Your task to perform on an android device: delete location history Image 0: 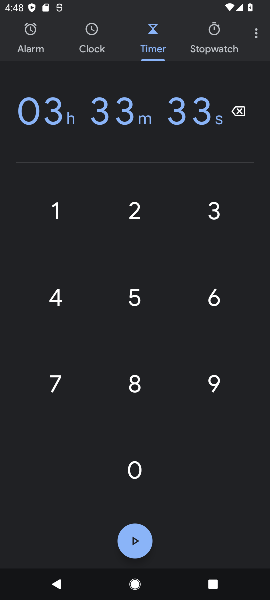
Step 0: press home button
Your task to perform on an android device: delete location history Image 1: 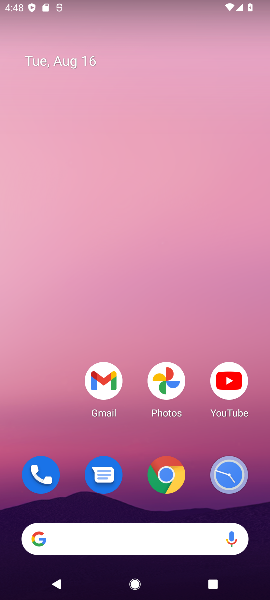
Step 1: drag from (263, 497) to (124, 19)
Your task to perform on an android device: delete location history Image 2: 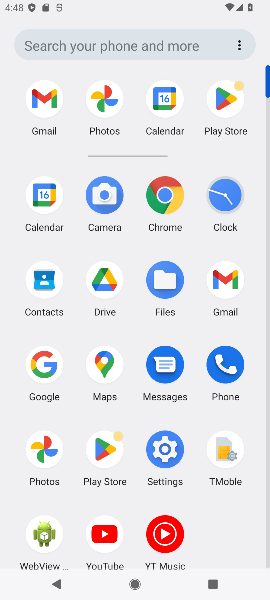
Step 2: click (151, 453)
Your task to perform on an android device: delete location history Image 3: 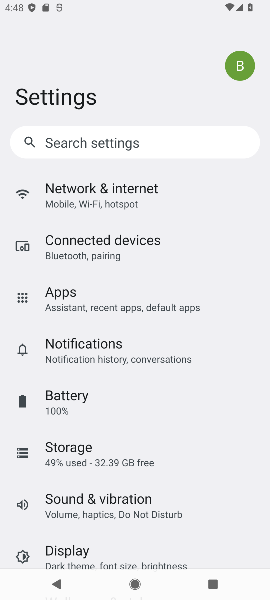
Step 3: drag from (131, 550) to (159, 211)
Your task to perform on an android device: delete location history Image 4: 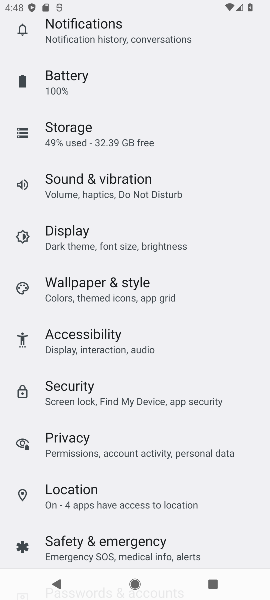
Step 4: click (81, 487)
Your task to perform on an android device: delete location history Image 5: 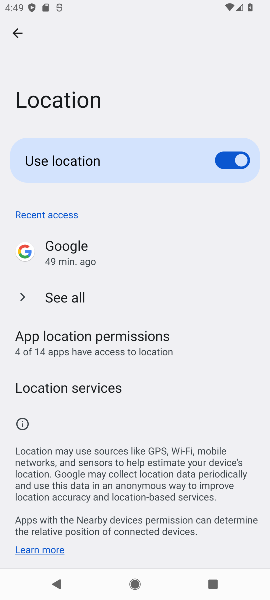
Step 5: task complete